Your task to perform on an android device: Open location settings Image 0: 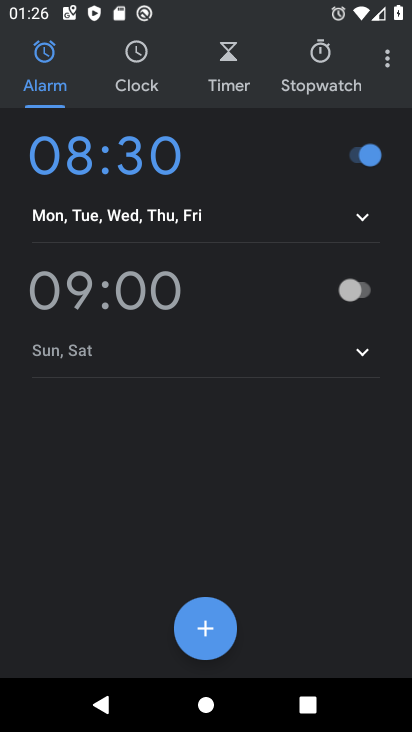
Step 0: press home button
Your task to perform on an android device: Open location settings Image 1: 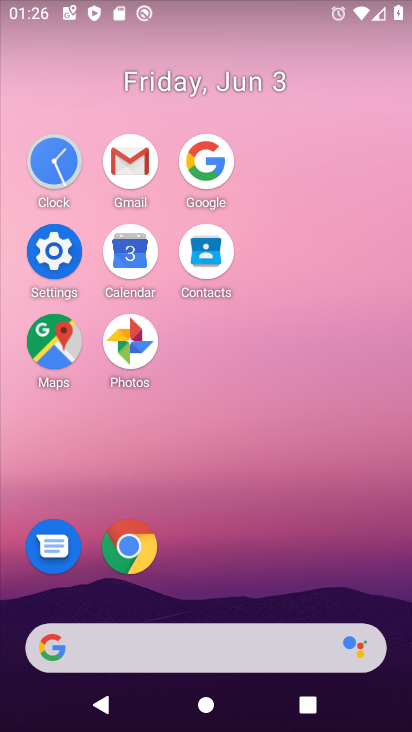
Step 1: click (69, 250)
Your task to perform on an android device: Open location settings Image 2: 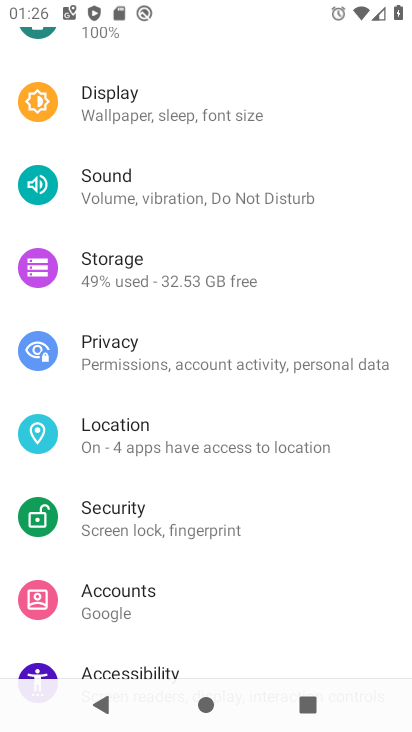
Step 2: click (217, 460)
Your task to perform on an android device: Open location settings Image 3: 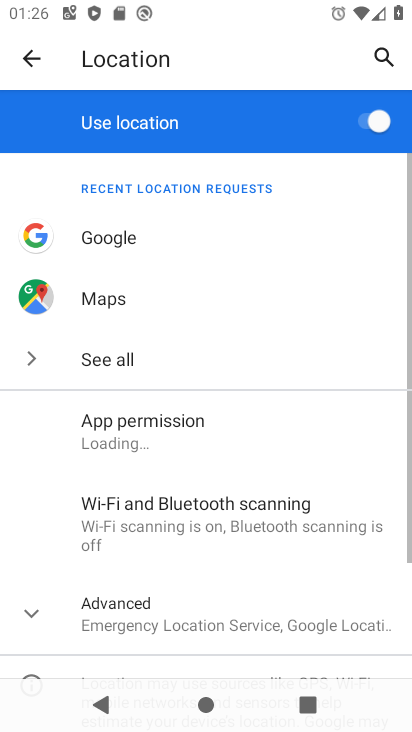
Step 3: task complete